Your task to perform on an android device: turn pop-ups on in chrome Image 0: 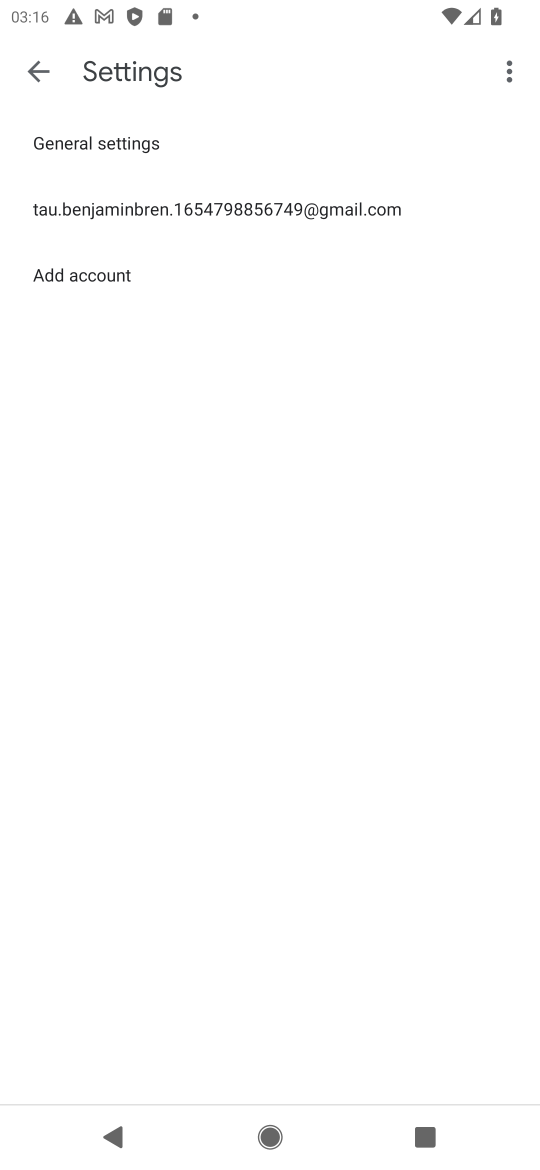
Step 0: press home button
Your task to perform on an android device: turn pop-ups on in chrome Image 1: 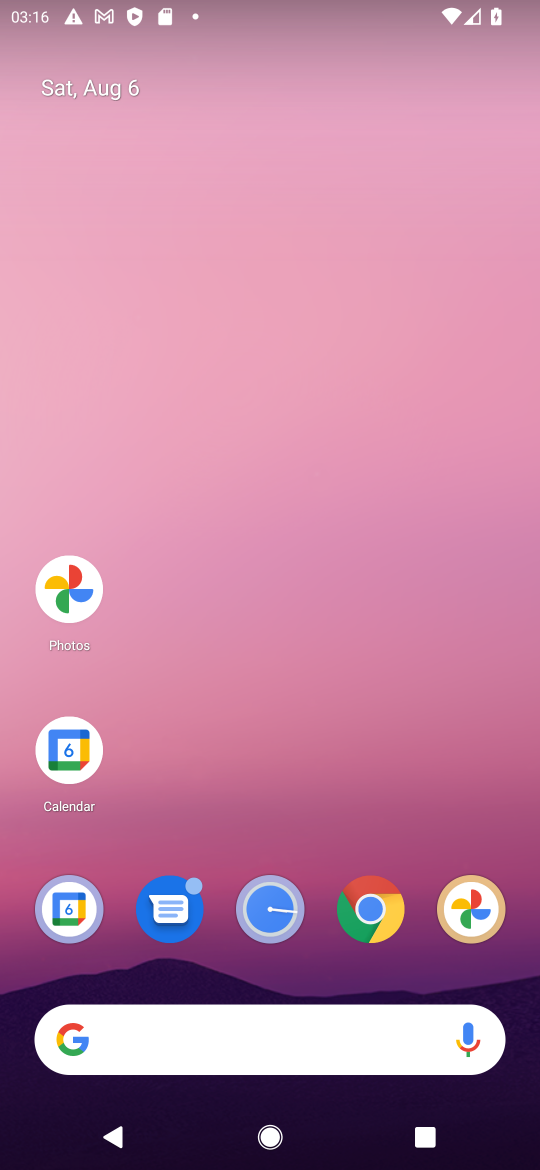
Step 1: click (372, 908)
Your task to perform on an android device: turn pop-ups on in chrome Image 2: 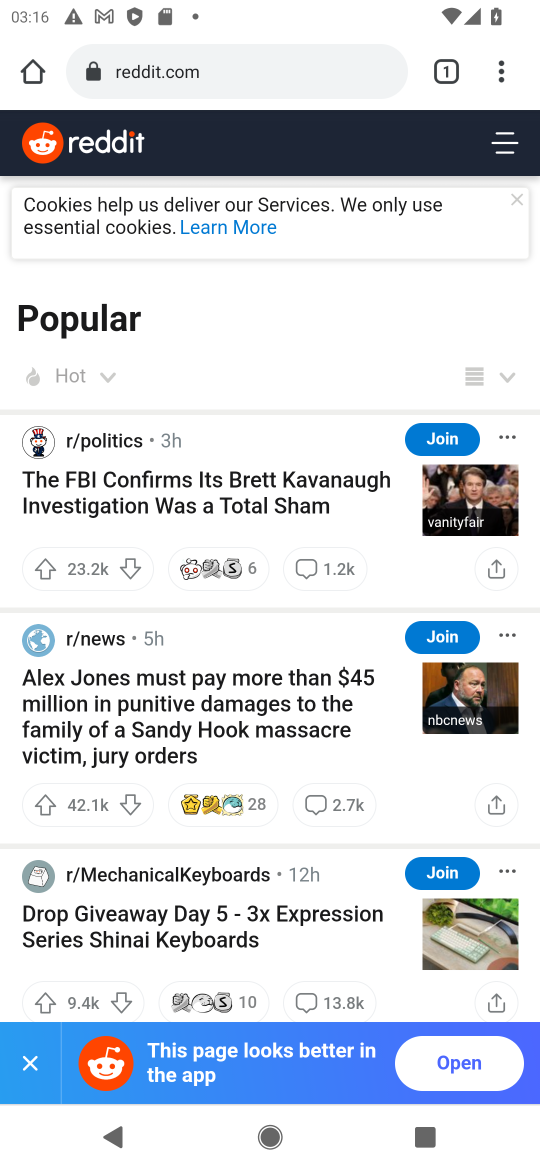
Step 2: click (501, 61)
Your task to perform on an android device: turn pop-ups on in chrome Image 3: 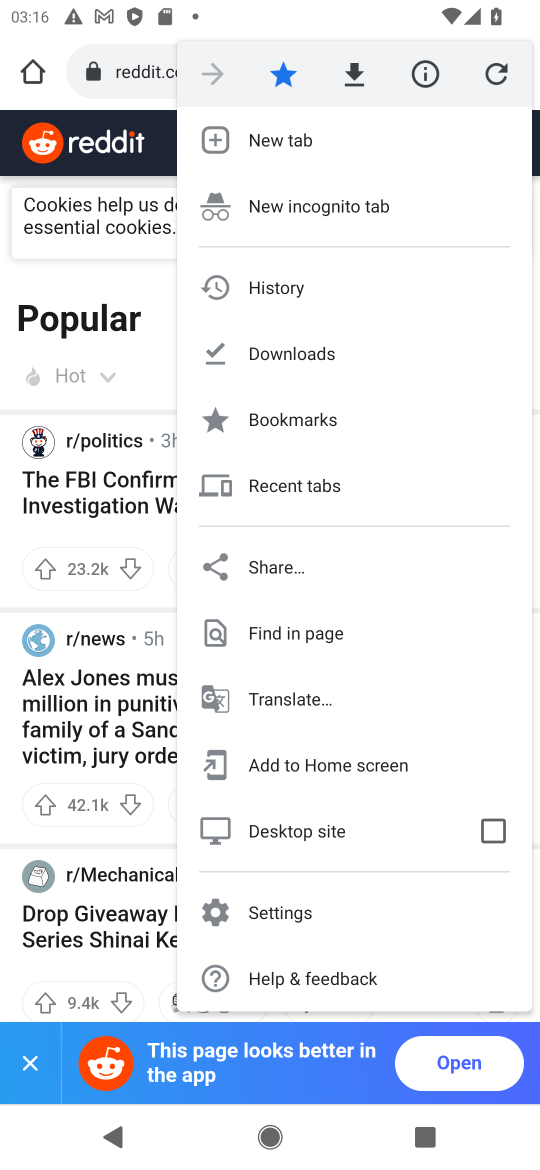
Step 3: click (285, 910)
Your task to perform on an android device: turn pop-ups on in chrome Image 4: 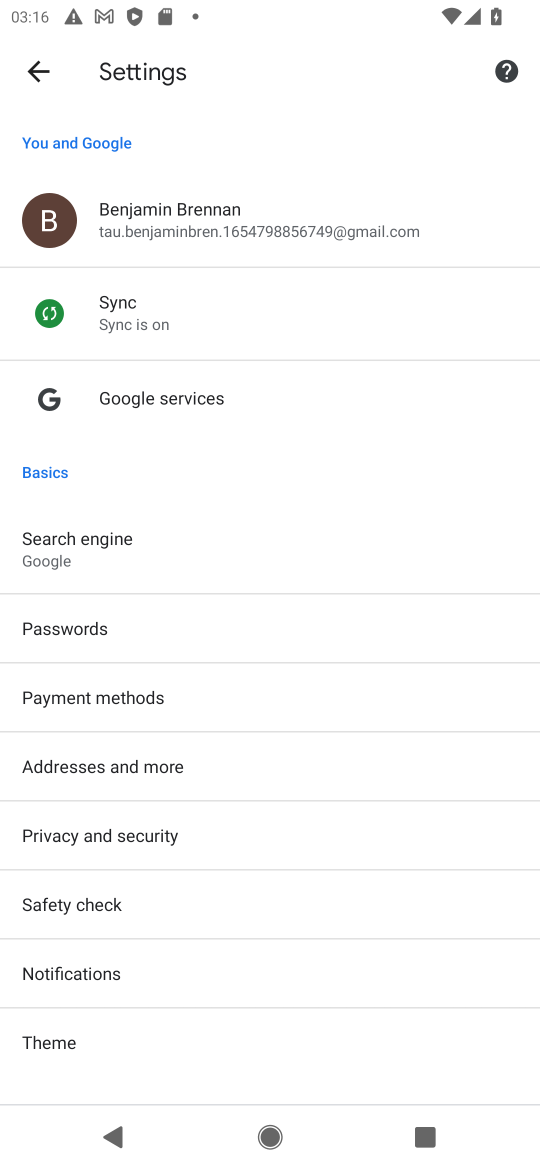
Step 4: drag from (260, 1032) to (209, 533)
Your task to perform on an android device: turn pop-ups on in chrome Image 5: 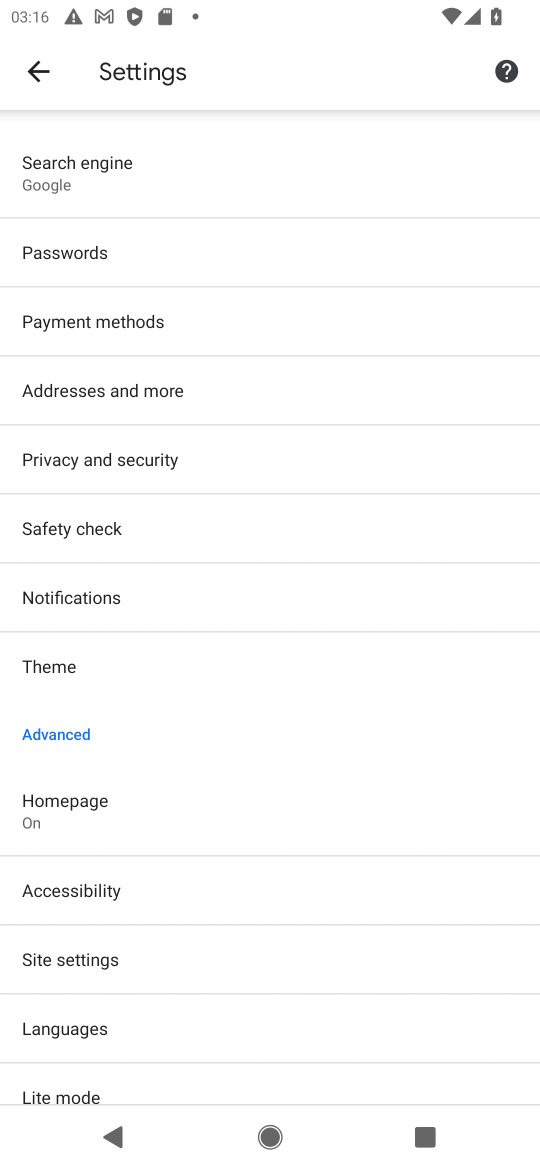
Step 5: click (74, 950)
Your task to perform on an android device: turn pop-ups on in chrome Image 6: 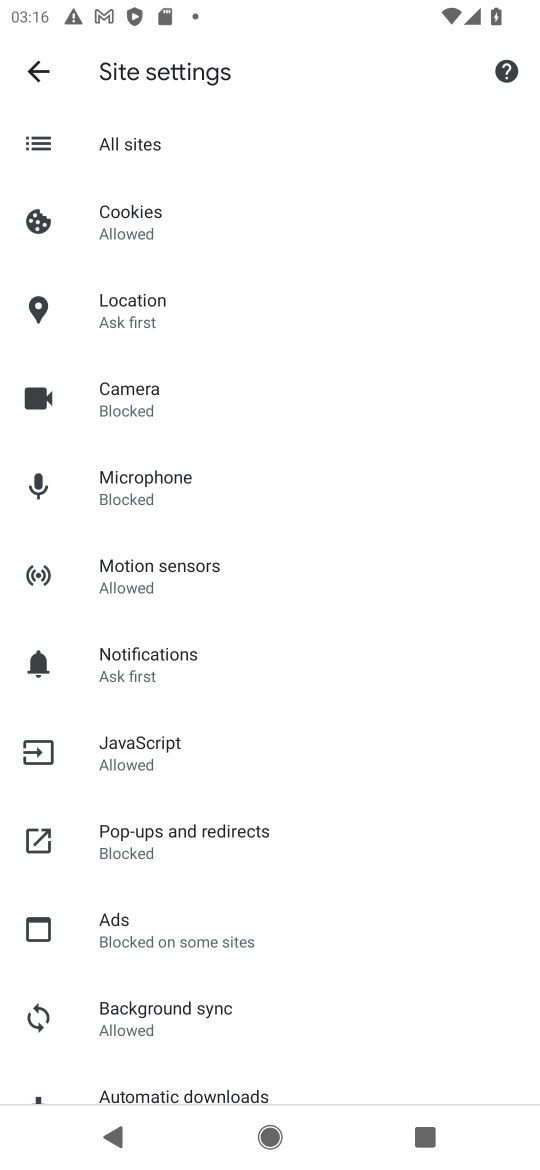
Step 6: click (152, 826)
Your task to perform on an android device: turn pop-ups on in chrome Image 7: 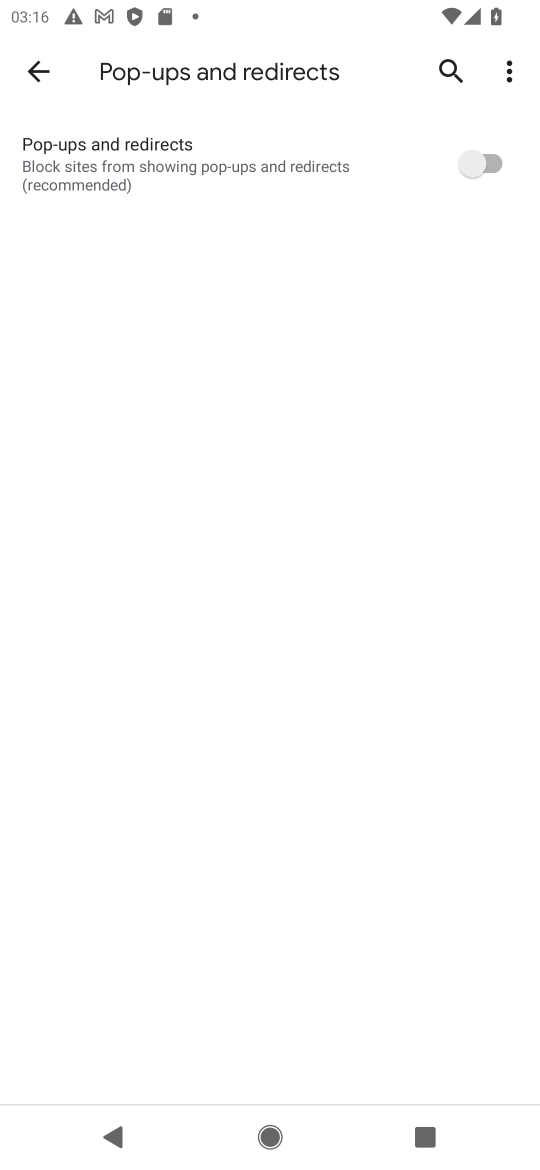
Step 7: click (475, 163)
Your task to perform on an android device: turn pop-ups on in chrome Image 8: 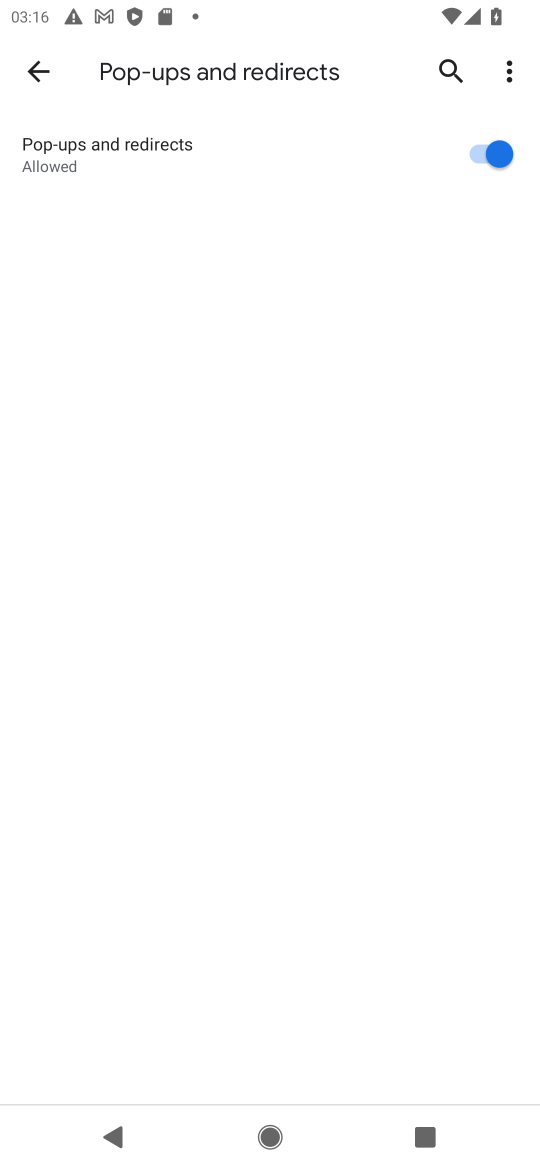
Step 8: task complete